Your task to perform on an android device: Show the shopping cart on walmart. Image 0: 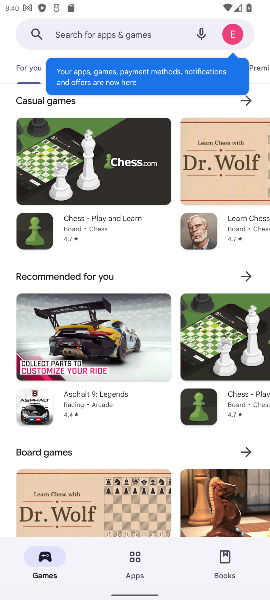
Step 0: press home button
Your task to perform on an android device: Show the shopping cart on walmart. Image 1: 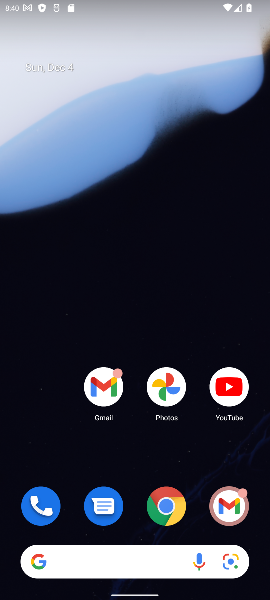
Step 1: click (176, 511)
Your task to perform on an android device: Show the shopping cart on walmart. Image 2: 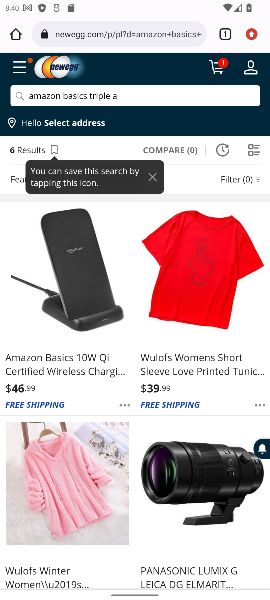
Step 2: click (130, 42)
Your task to perform on an android device: Show the shopping cart on walmart. Image 3: 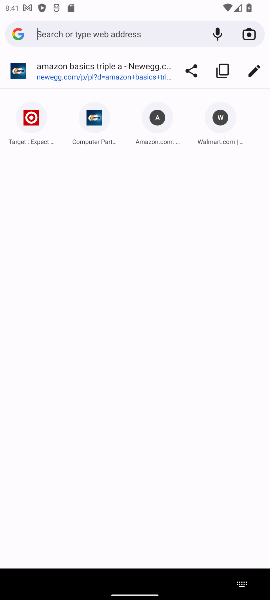
Step 3: type "walmart"
Your task to perform on an android device: Show the shopping cart on walmart. Image 4: 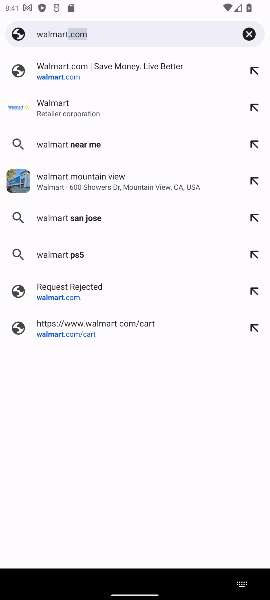
Step 4: click (63, 122)
Your task to perform on an android device: Show the shopping cart on walmart. Image 5: 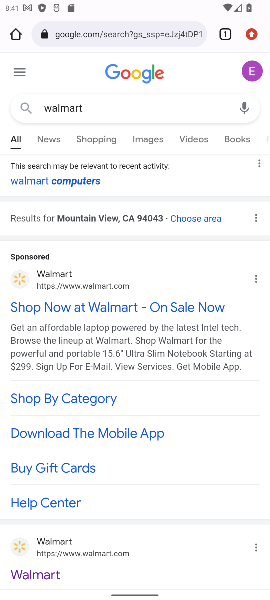
Step 5: click (49, 569)
Your task to perform on an android device: Show the shopping cart on walmart. Image 6: 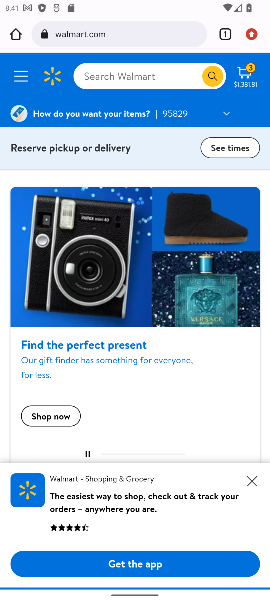
Step 6: click (249, 74)
Your task to perform on an android device: Show the shopping cart on walmart. Image 7: 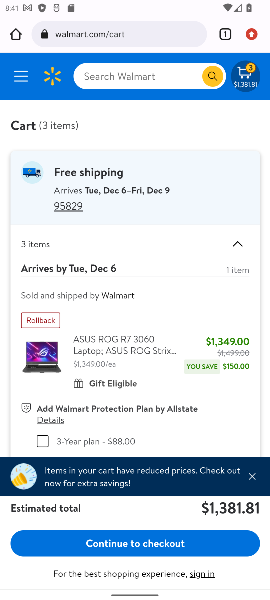
Step 7: task complete